Your task to perform on an android device: toggle improve location accuracy Image 0: 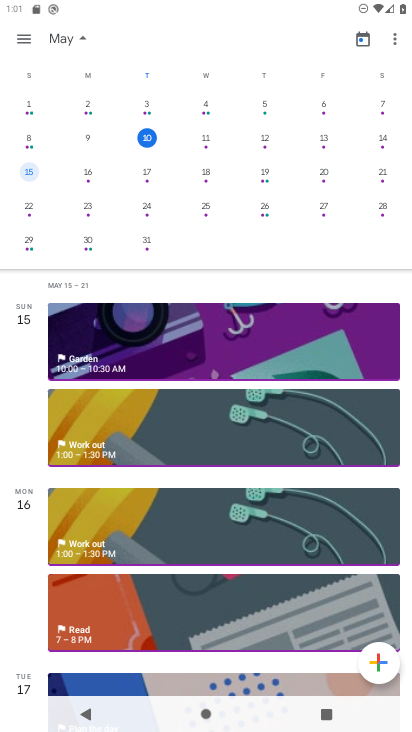
Step 0: press home button
Your task to perform on an android device: toggle improve location accuracy Image 1: 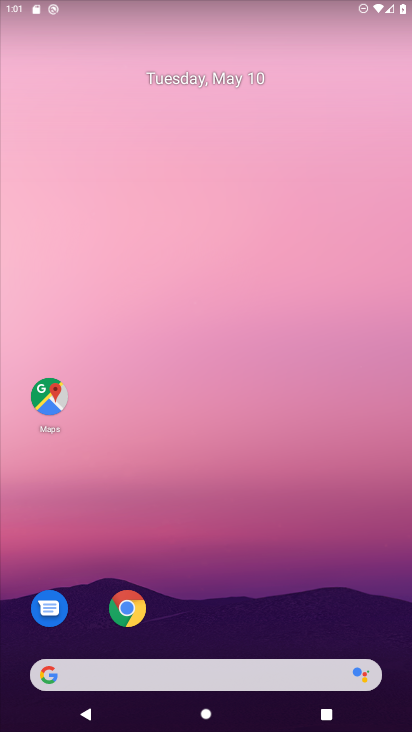
Step 1: drag from (299, 608) to (291, 182)
Your task to perform on an android device: toggle improve location accuracy Image 2: 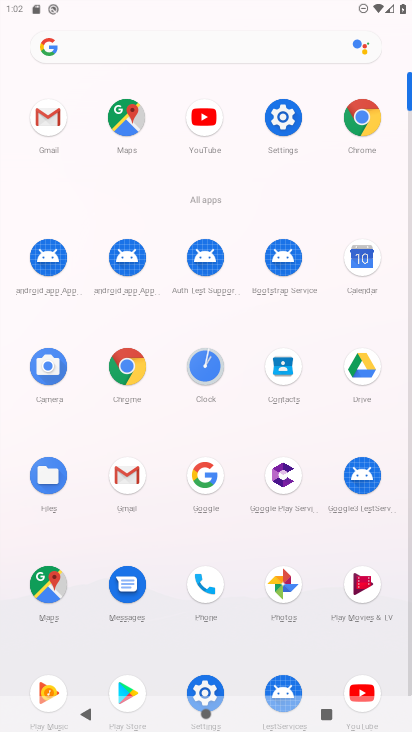
Step 2: click (201, 679)
Your task to perform on an android device: toggle improve location accuracy Image 3: 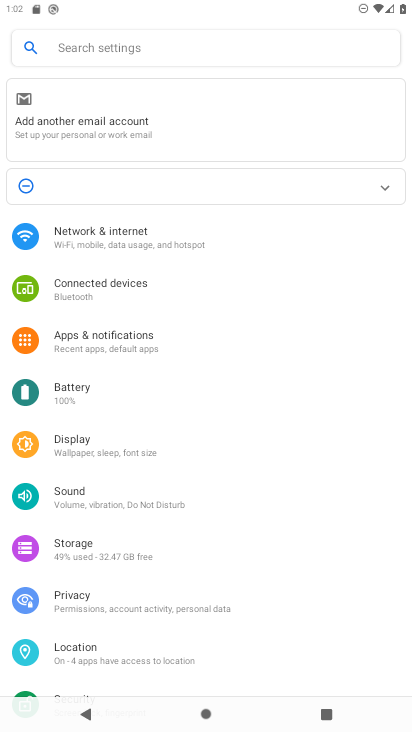
Step 3: drag from (265, 551) to (279, 280)
Your task to perform on an android device: toggle improve location accuracy Image 4: 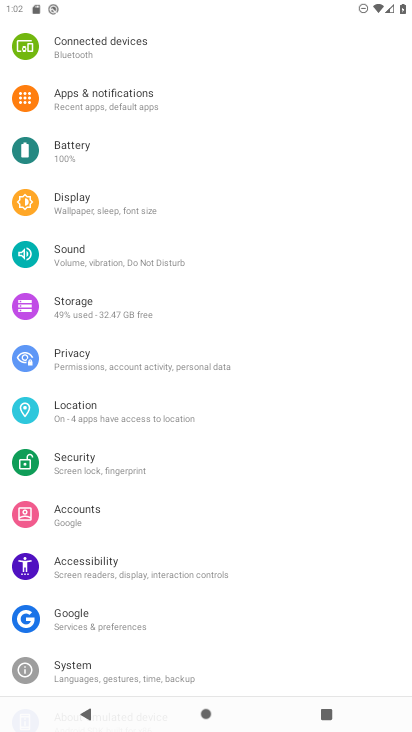
Step 4: click (133, 403)
Your task to perform on an android device: toggle improve location accuracy Image 5: 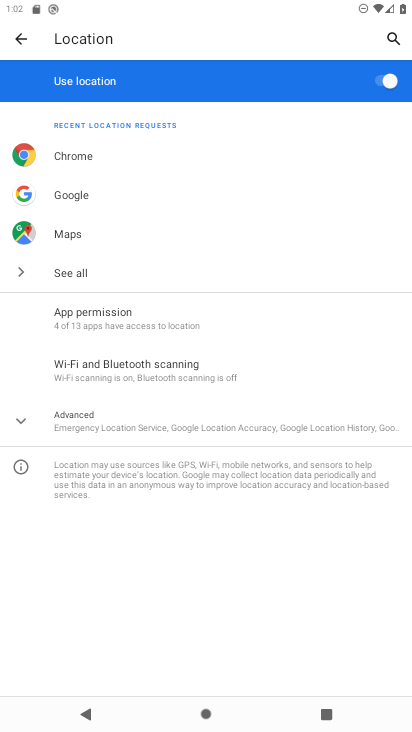
Step 5: click (134, 414)
Your task to perform on an android device: toggle improve location accuracy Image 6: 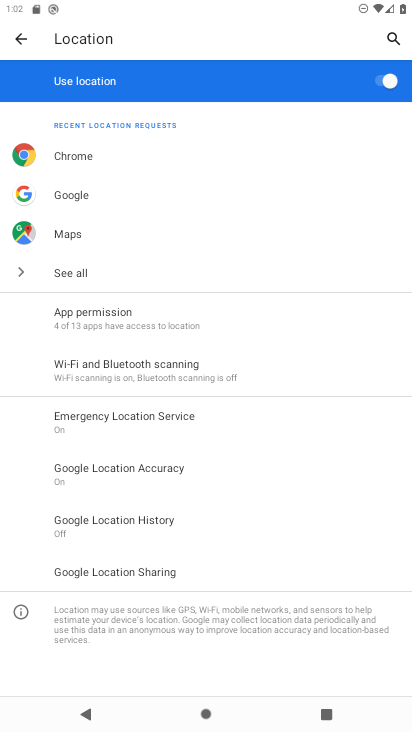
Step 6: click (121, 467)
Your task to perform on an android device: toggle improve location accuracy Image 7: 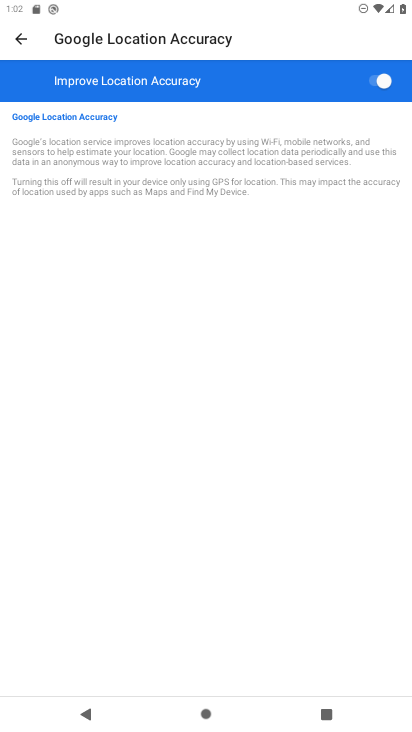
Step 7: click (370, 84)
Your task to perform on an android device: toggle improve location accuracy Image 8: 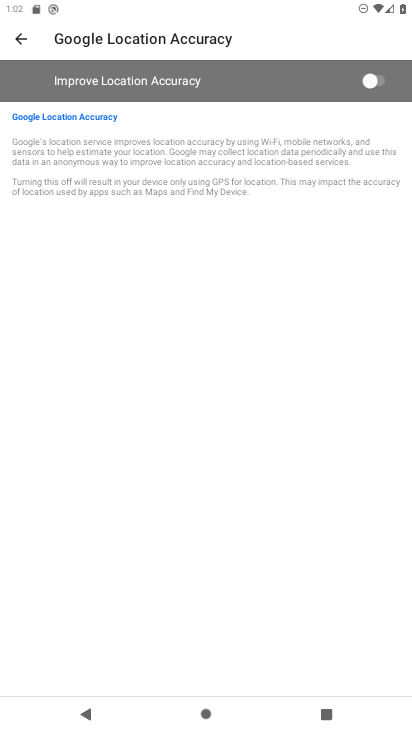
Step 8: task complete